Your task to perform on an android device: turn off data saver in the chrome app Image 0: 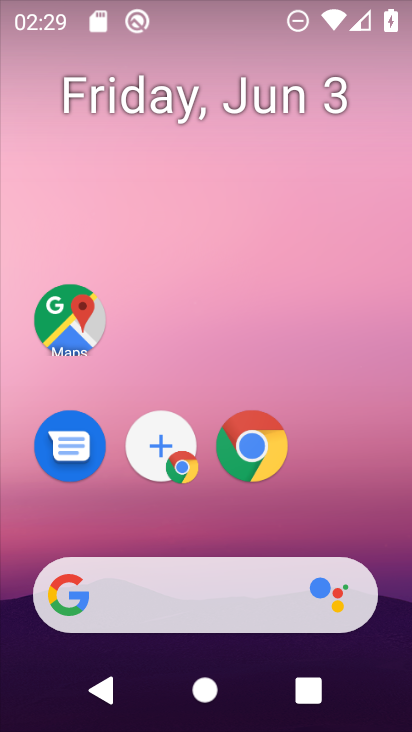
Step 0: click (225, 435)
Your task to perform on an android device: turn off data saver in the chrome app Image 1: 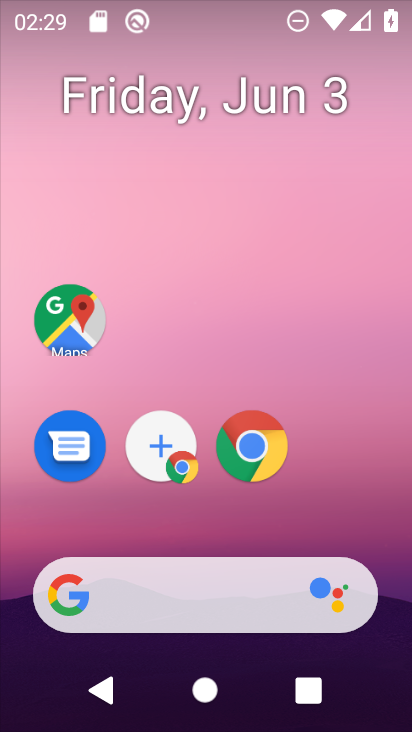
Step 1: click (225, 435)
Your task to perform on an android device: turn off data saver in the chrome app Image 2: 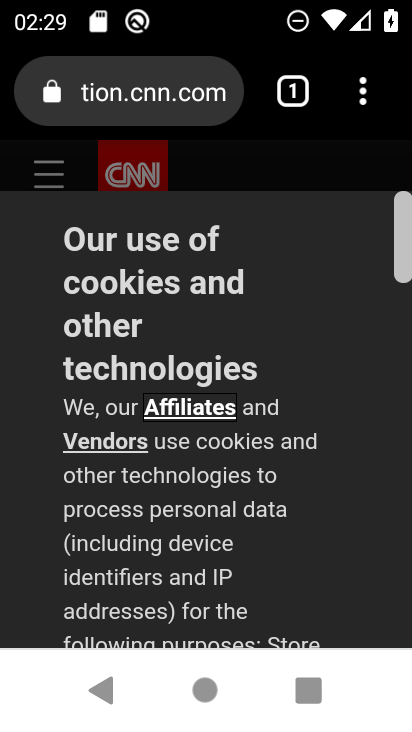
Step 2: click (366, 88)
Your task to perform on an android device: turn off data saver in the chrome app Image 3: 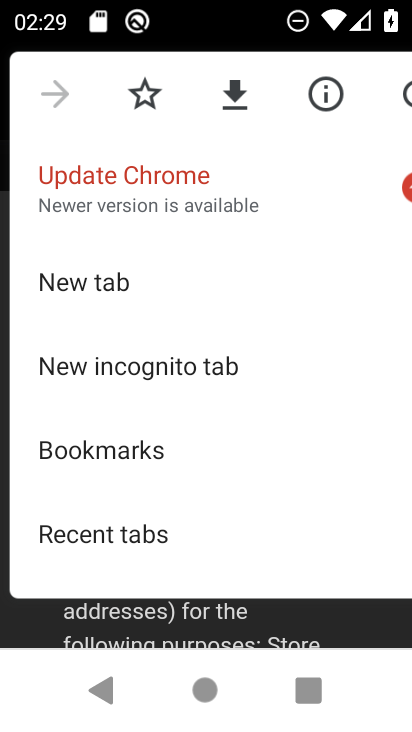
Step 3: drag from (283, 546) to (280, 96)
Your task to perform on an android device: turn off data saver in the chrome app Image 4: 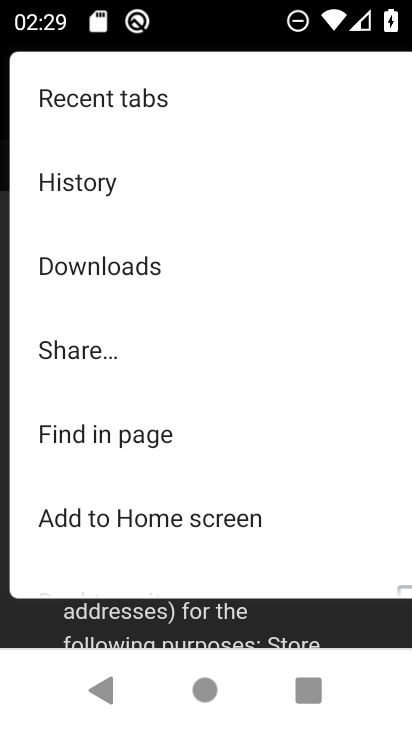
Step 4: drag from (214, 428) to (178, 96)
Your task to perform on an android device: turn off data saver in the chrome app Image 5: 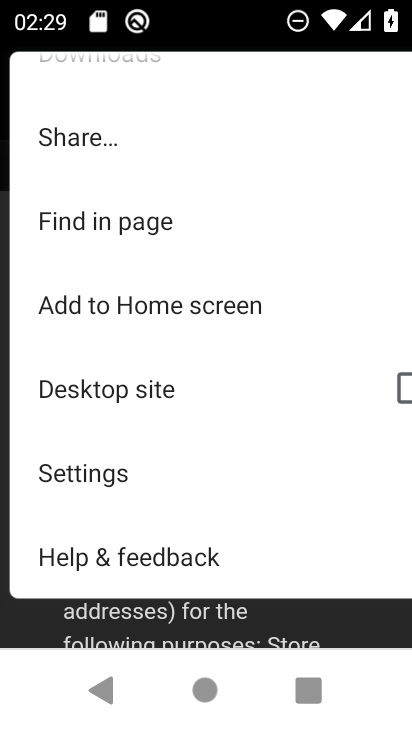
Step 5: click (163, 489)
Your task to perform on an android device: turn off data saver in the chrome app Image 6: 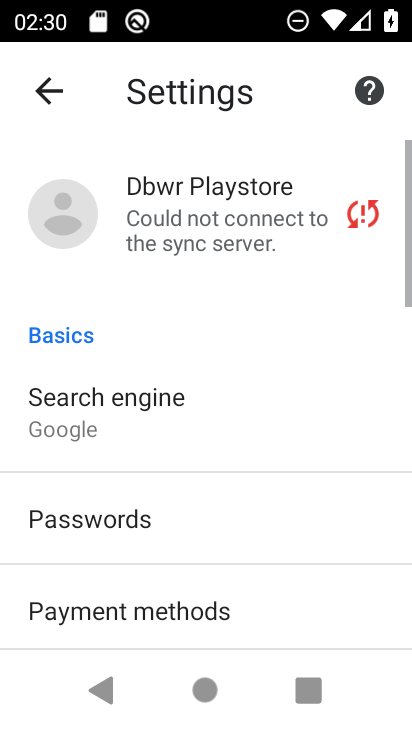
Step 6: drag from (151, 577) to (178, 76)
Your task to perform on an android device: turn off data saver in the chrome app Image 7: 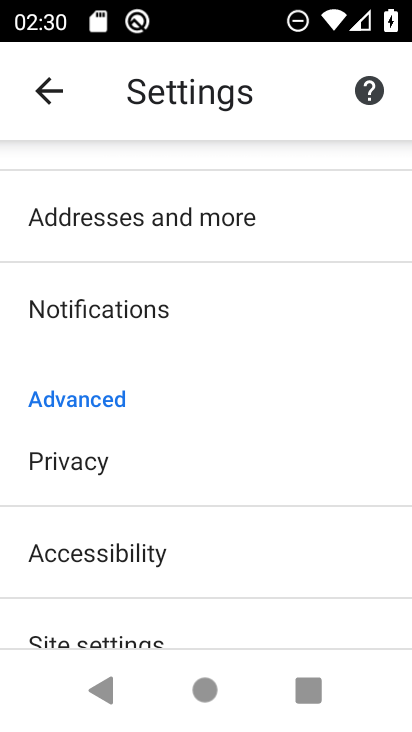
Step 7: drag from (157, 510) to (149, 207)
Your task to perform on an android device: turn off data saver in the chrome app Image 8: 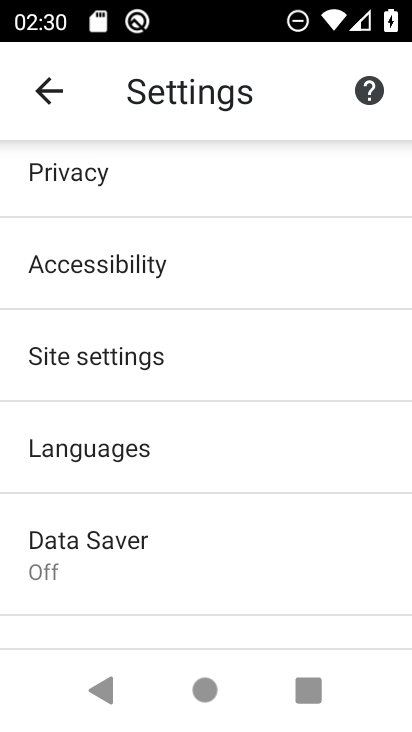
Step 8: click (146, 572)
Your task to perform on an android device: turn off data saver in the chrome app Image 9: 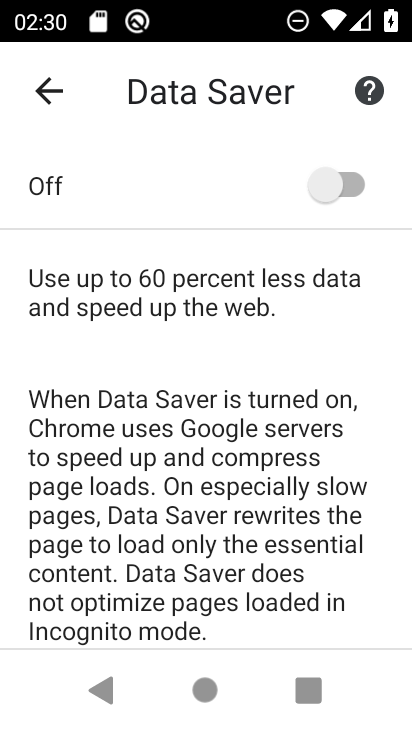
Step 9: task complete